Your task to perform on an android device: Is it going to rain tomorrow? Image 0: 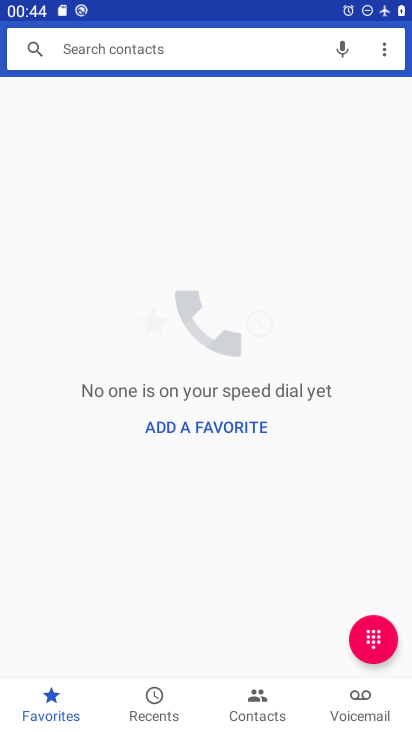
Step 0: press home button
Your task to perform on an android device: Is it going to rain tomorrow? Image 1: 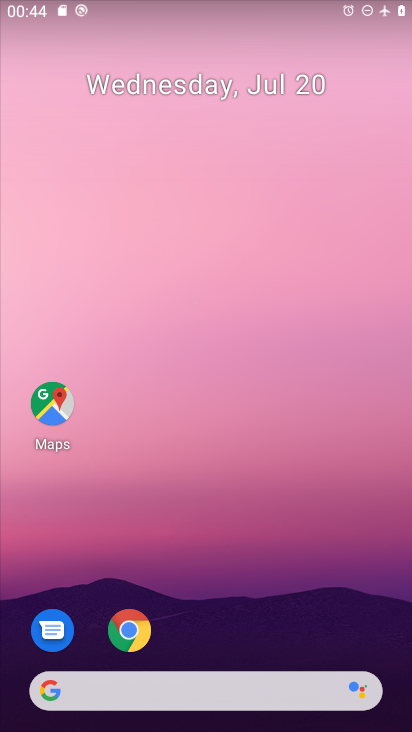
Step 1: drag from (223, 629) to (198, 183)
Your task to perform on an android device: Is it going to rain tomorrow? Image 2: 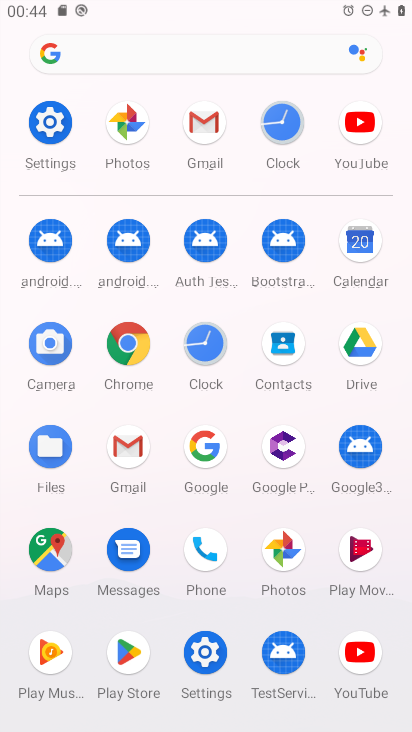
Step 2: click (192, 439)
Your task to perform on an android device: Is it going to rain tomorrow? Image 3: 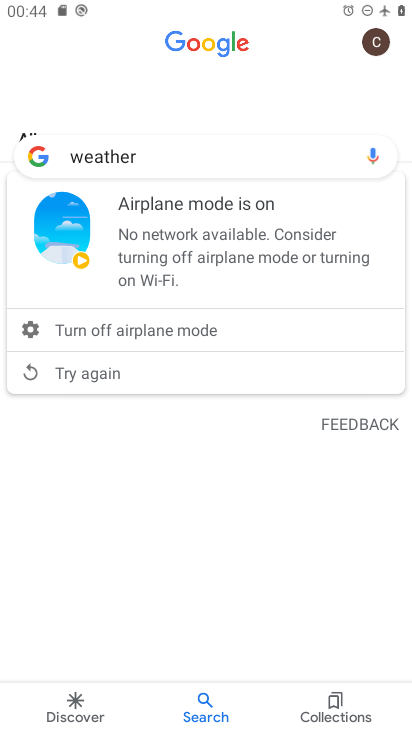
Step 3: click (199, 149)
Your task to perform on an android device: Is it going to rain tomorrow? Image 4: 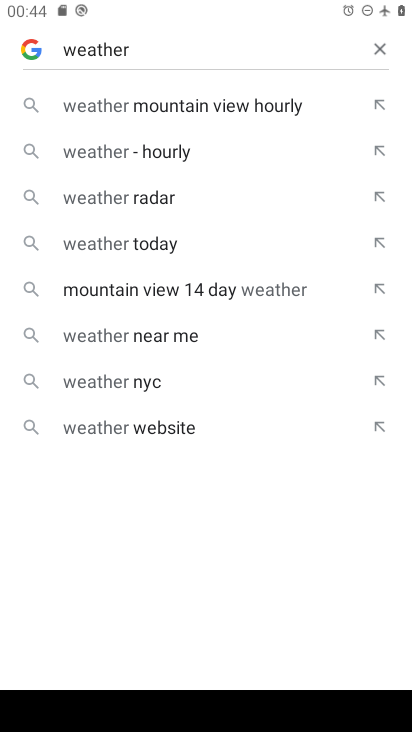
Step 4: task complete